Your task to perform on an android device: change notification settings in the gmail app Image 0: 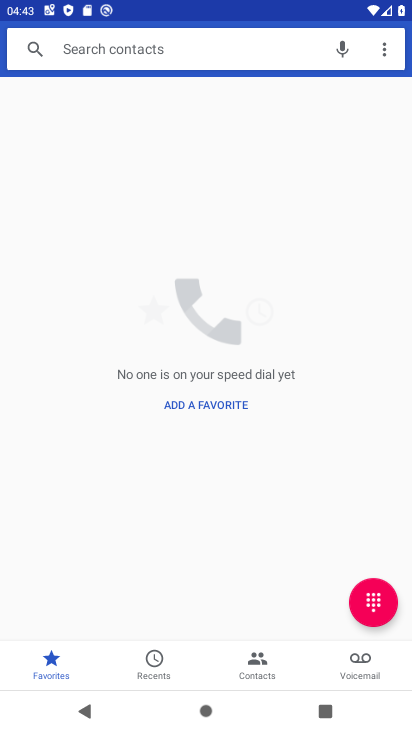
Step 0: press home button
Your task to perform on an android device: change notification settings in the gmail app Image 1: 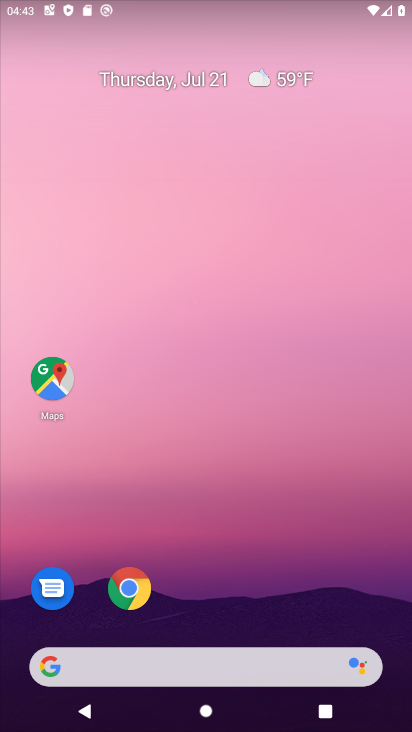
Step 1: drag from (198, 598) to (196, 52)
Your task to perform on an android device: change notification settings in the gmail app Image 2: 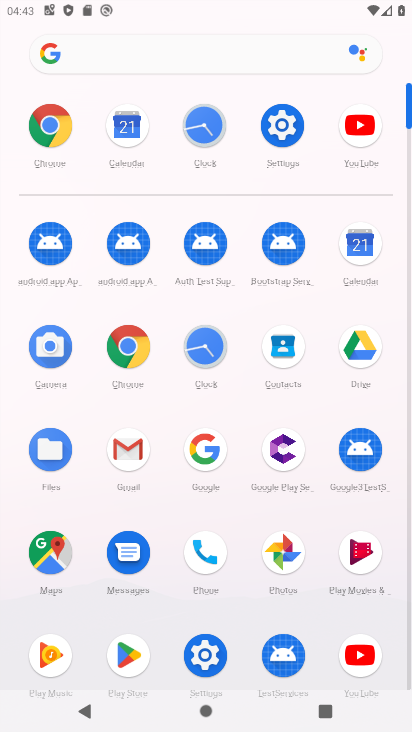
Step 2: click (133, 467)
Your task to perform on an android device: change notification settings in the gmail app Image 3: 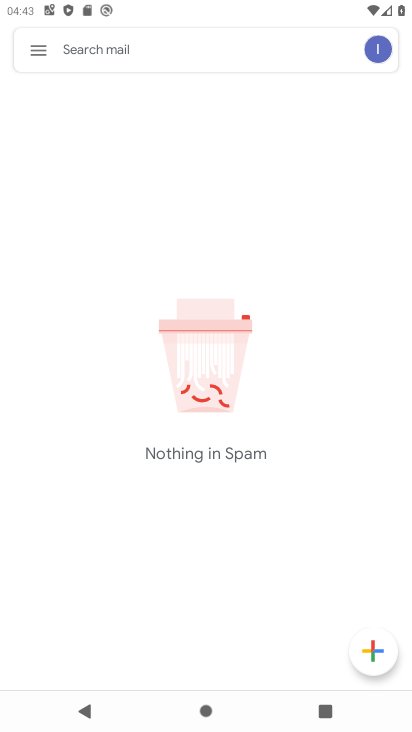
Step 3: click (33, 39)
Your task to perform on an android device: change notification settings in the gmail app Image 4: 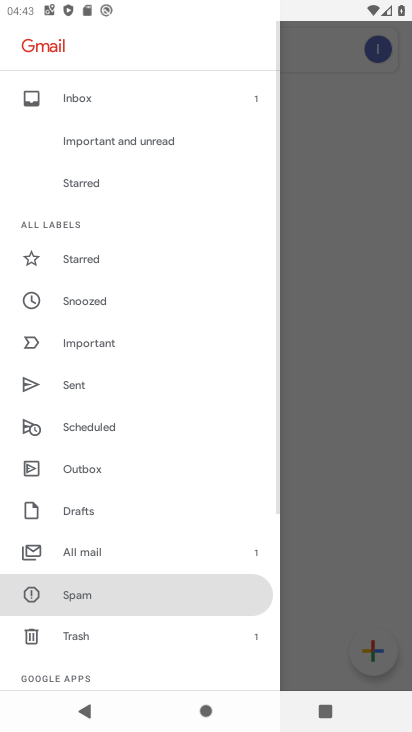
Step 4: drag from (106, 609) to (130, 256)
Your task to perform on an android device: change notification settings in the gmail app Image 5: 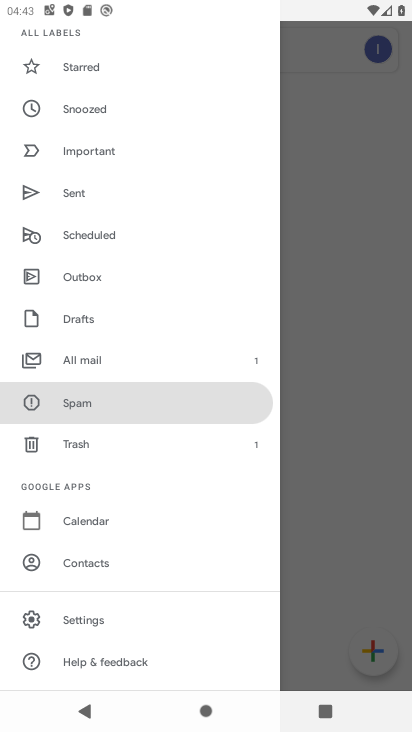
Step 5: click (84, 619)
Your task to perform on an android device: change notification settings in the gmail app Image 6: 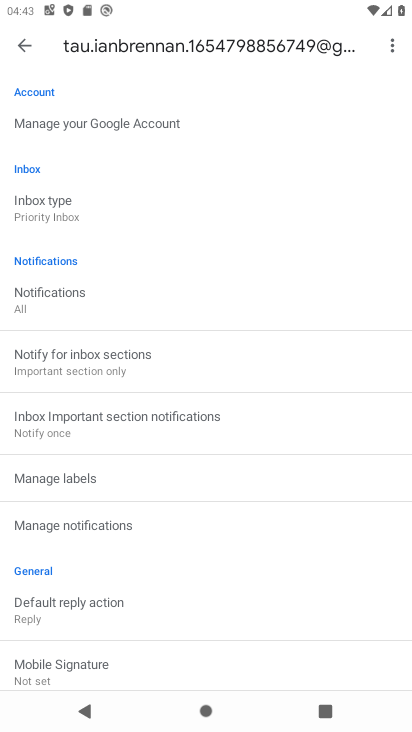
Step 6: click (32, 42)
Your task to perform on an android device: change notification settings in the gmail app Image 7: 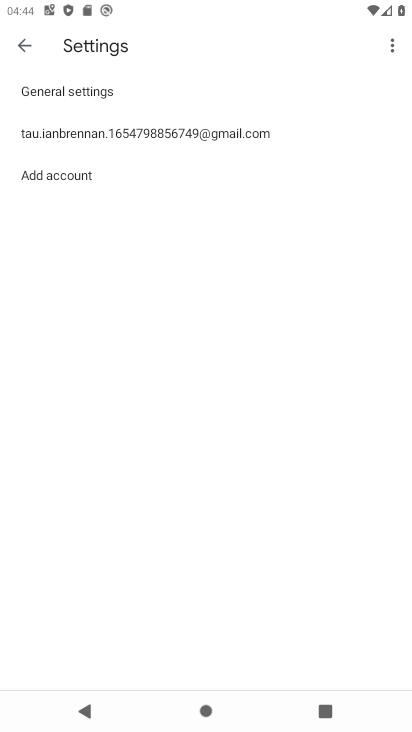
Step 7: click (68, 89)
Your task to perform on an android device: change notification settings in the gmail app Image 8: 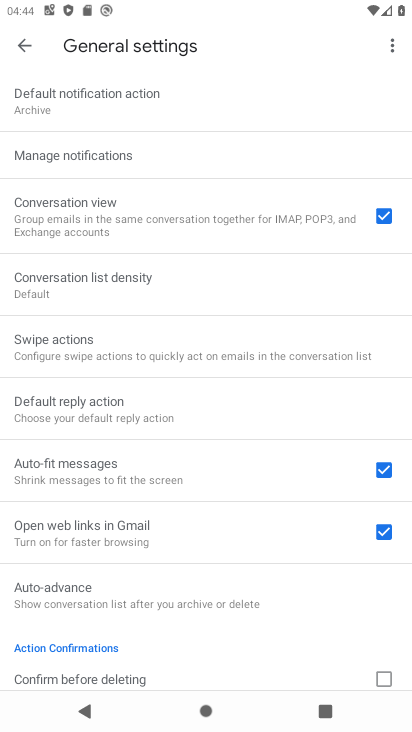
Step 8: click (76, 156)
Your task to perform on an android device: change notification settings in the gmail app Image 9: 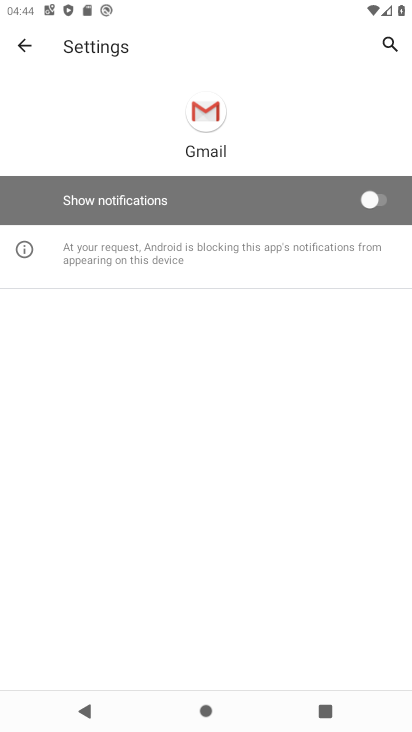
Step 9: click (348, 202)
Your task to perform on an android device: change notification settings in the gmail app Image 10: 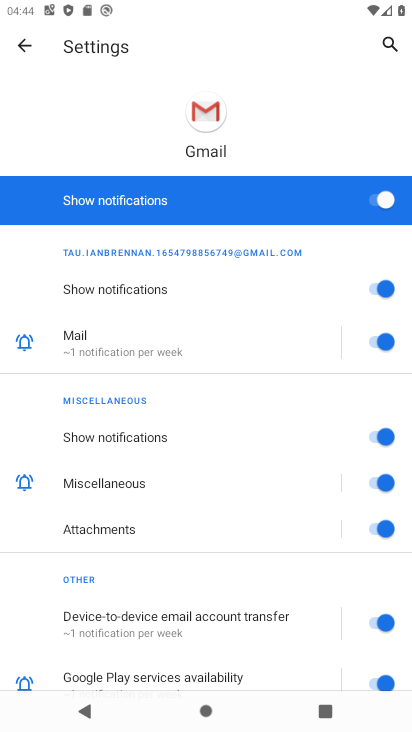
Step 10: task complete